Your task to perform on an android device: turn off picture-in-picture Image 0: 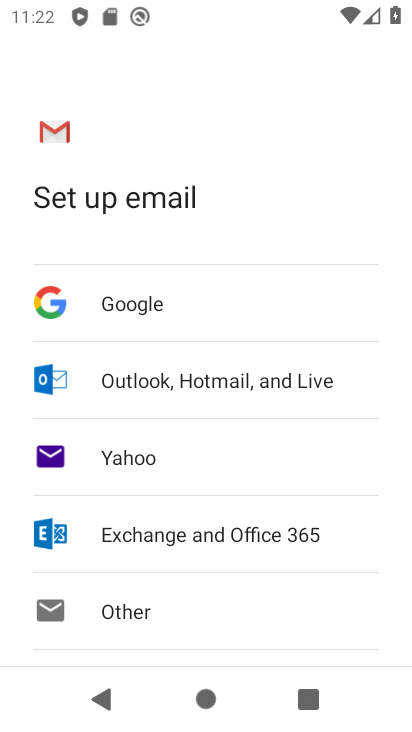
Step 0: press home button
Your task to perform on an android device: turn off picture-in-picture Image 1: 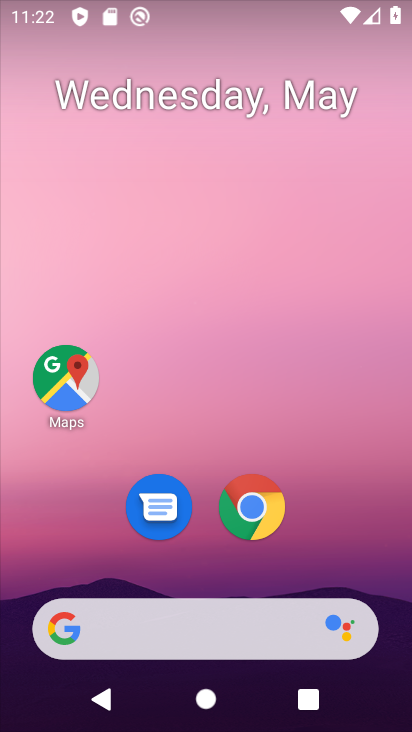
Step 1: click (243, 509)
Your task to perform on an android device: turn off picture-in-picture Image 2: 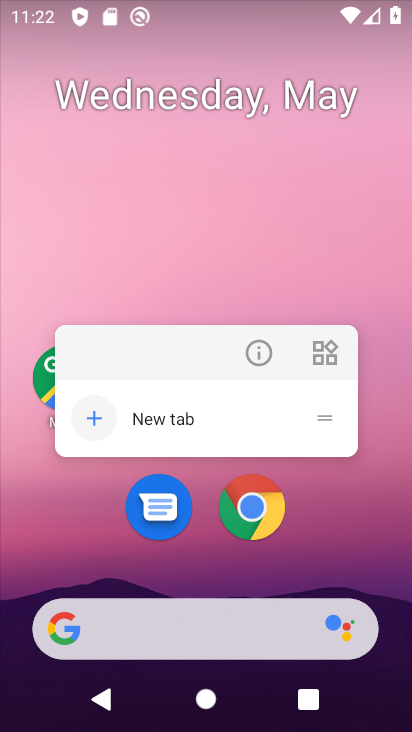
Step 2: click (257, 350)
Your task to perform on an android device: turn off picture-in-picture Image 3: 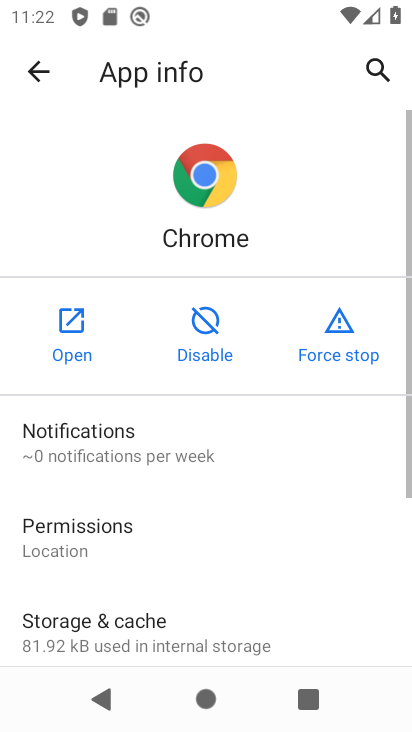
Step 3: drag from (137, 604) to (123, 130)
Your task to perform on an android device: turn off picture-in-picture Image 4: 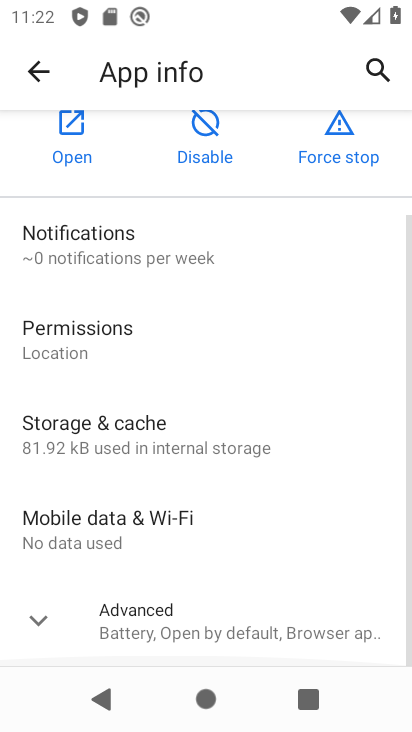
Step 4: drag from (146, 584) to (207, 271)
Your task to perform on an android device: turn off picture-in-picture Image 5: 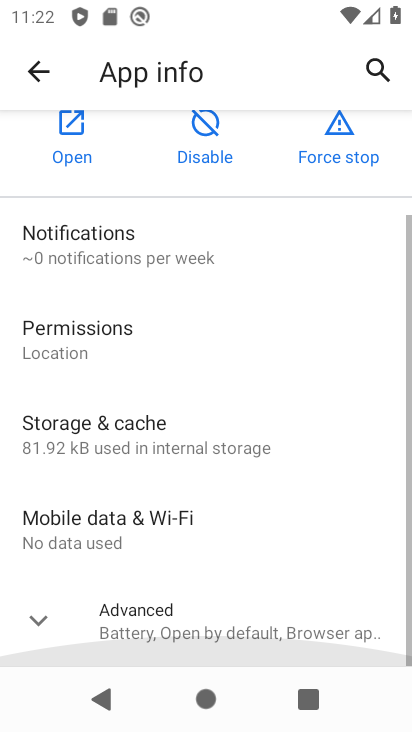
Step 5: click (266, 632)
Your task to perform on an android device: turn off picture-in-picture Image 6: 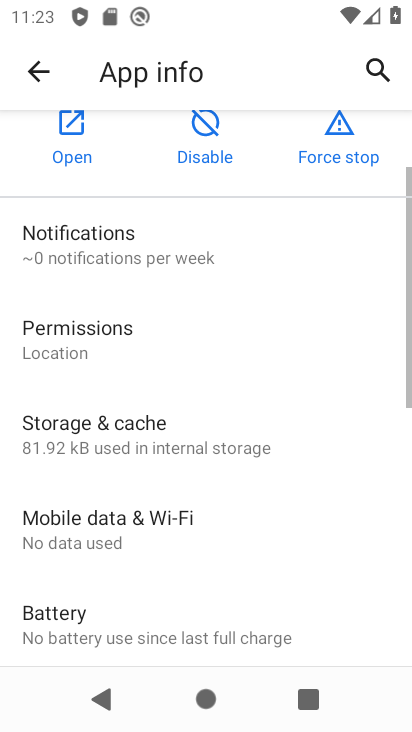
Step 6: drag from (238, 585) to (229, 111)
Your task to perform on an android device: turn off picture-in-picture Image 7: 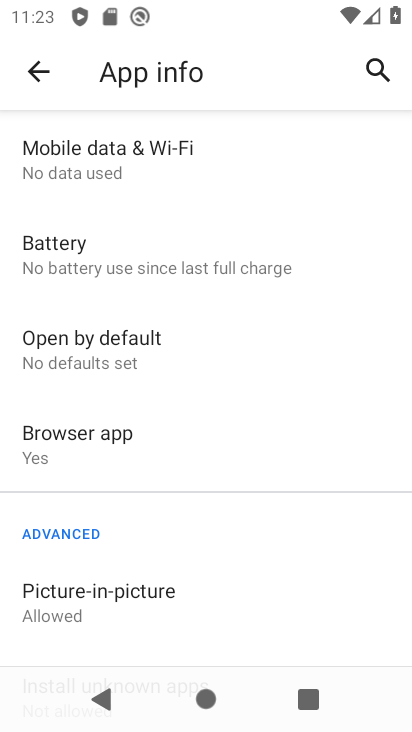
Step 7: click (206, 592)
Your task to perform on an android device: turn off picture-in-picture Image 8: 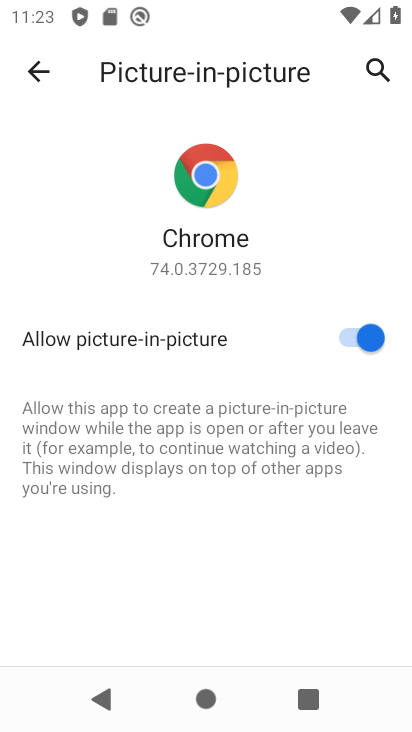
Step 8: click (335, 328)
Your task to perform on an android device: turn off picture-in-picture Image 9: 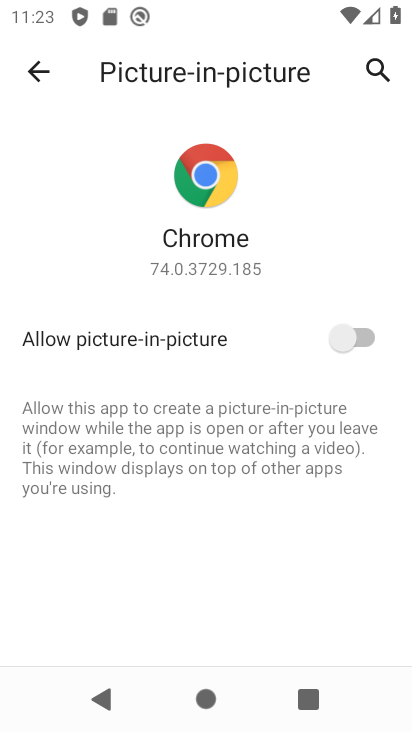
Step 9: task complete